Your task to perform on an android device: Search for sushi restaurants on Maps Image 0: 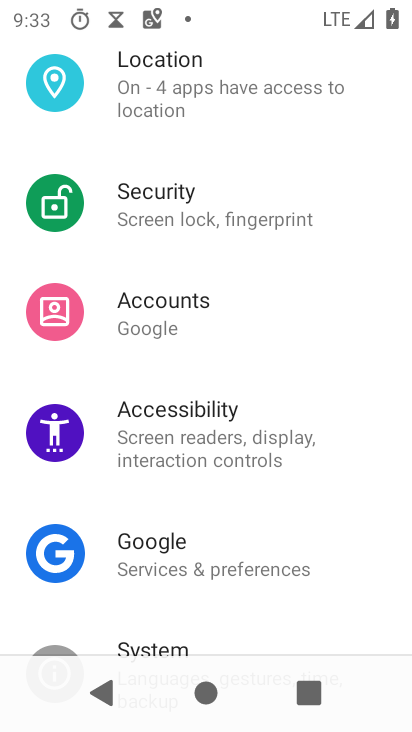
Step 0: press home button
Your task to perform on an android device: Search for sushi restaurants on Maps Image 1: 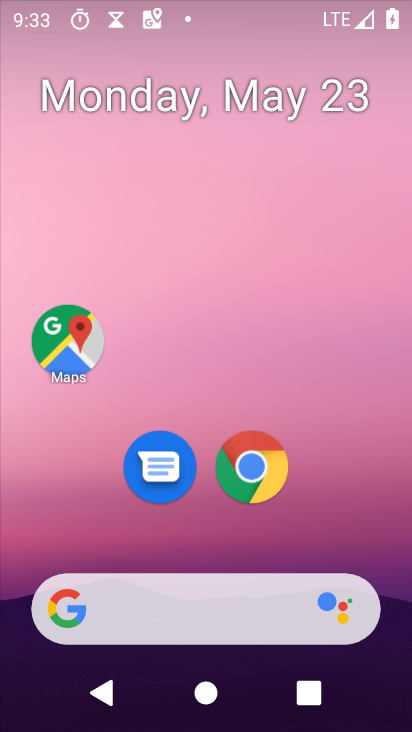
Step 1: click (83, 343)
Your task to perform on an android device: Search for sushi restaurants on Maps Image 2: 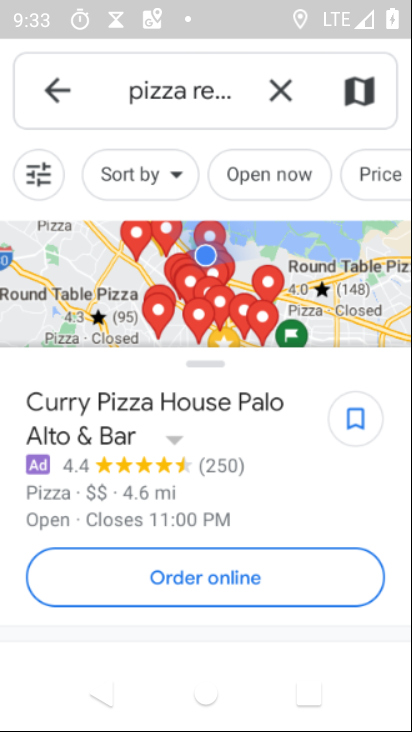
Step 2: click (282, 80)
Your task to perform on an android device: Search for sushi restaurants on Maps Image 3: 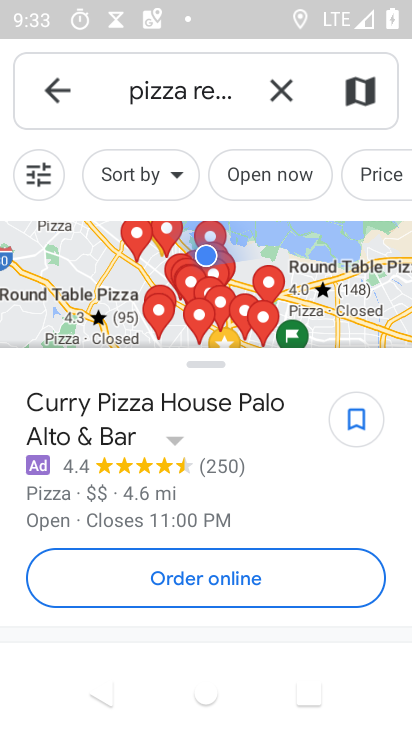
Step 3: click (276, 87)
Your task to perform on an android device: Search for sushi restaurants on Maps Image 4: 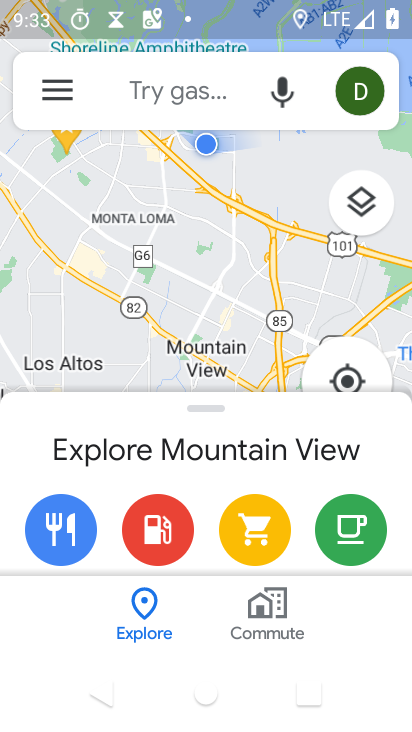
Step 4: click (191, 79)
Your task to perform on an android device: Search for sushi restaurants on Maps Image 5: 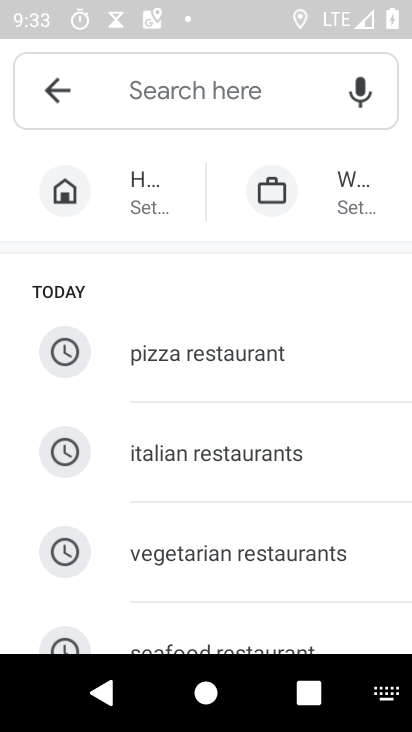
Step 5: drag from (201, 584) to (220, 269)
Your task to perform on an android device: Search for sushi restaurants on Maps Image 6: 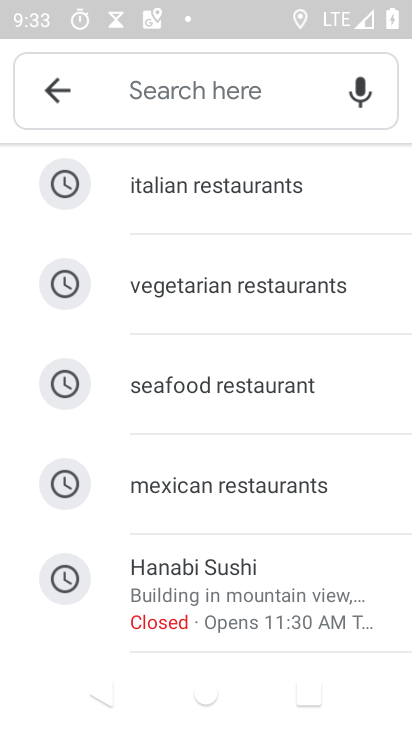
Step 6: drag from (211, 557) to (216, 179)
Your task to perform on an android device: Search for sushi restaurants on Maps Image 7: 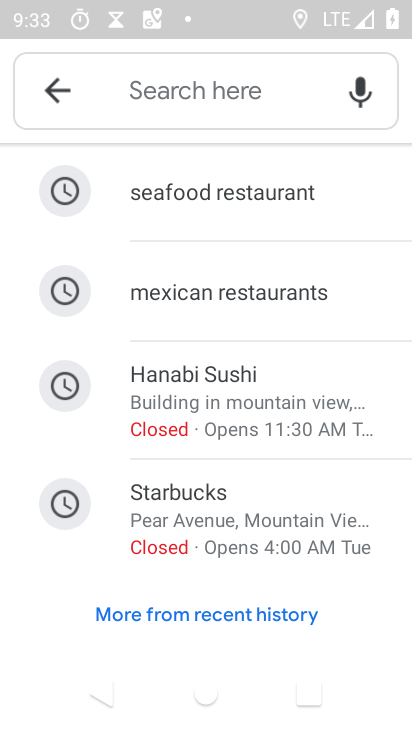
Step 7: click (189, 81)
Your task to perform on an android device: Search for sushi restaurants on Maps Image 8: 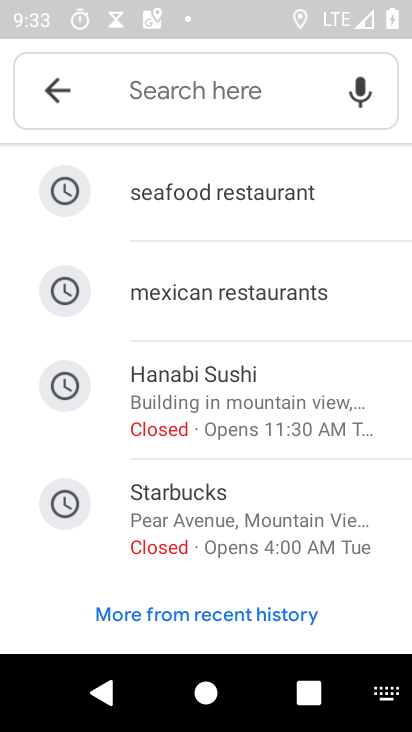
Step 8: type "sushi restaurants"
Your task to perform on an android device: Search for sushi restaurants on Maps Image 9: 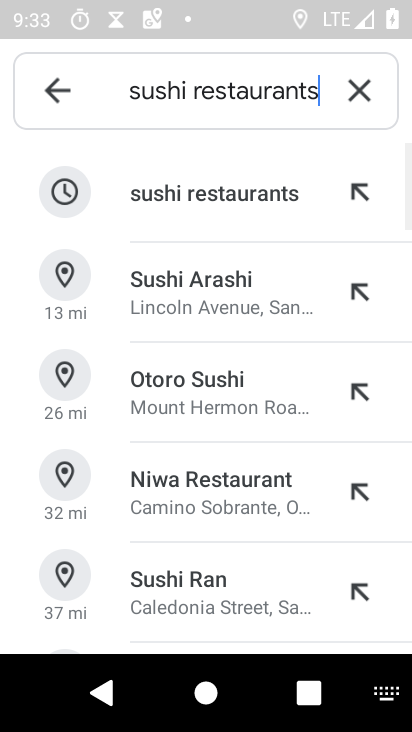
Step 9: click (233, 186)
Your task to perform on an android device: Search for sushi restaurants on Maps Image 10: 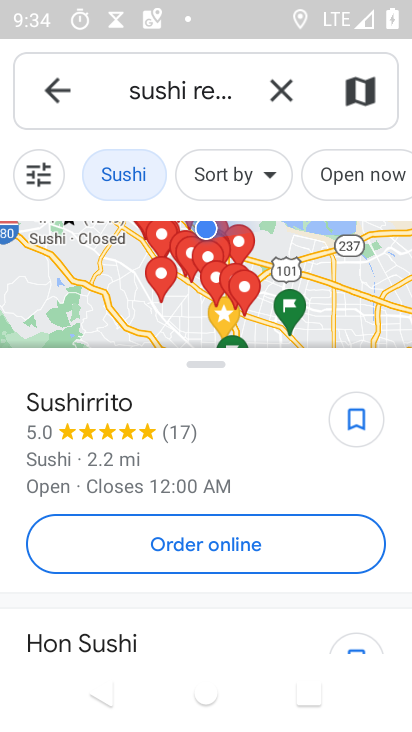
Step 10: task complete